Your task to perform on an android device: toggle wifi Image 0: 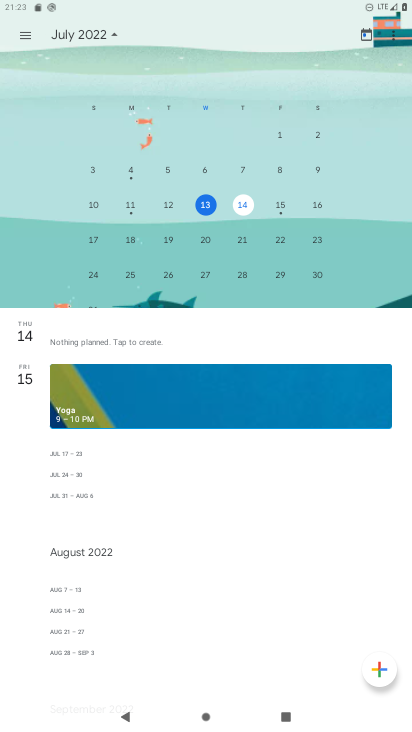
Step 0: press home button
Your task to perform on an android device: toggle wifi Image 1: 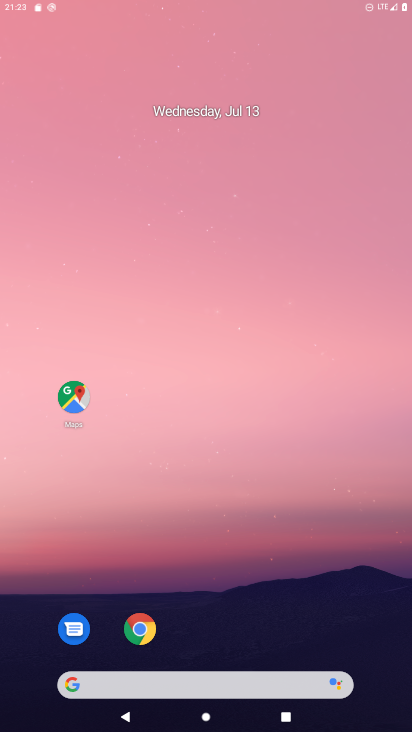
Step 1: drag from (183, 1) to (160, 396)
Your task to perform on an android device: toggle wifi Image 2: 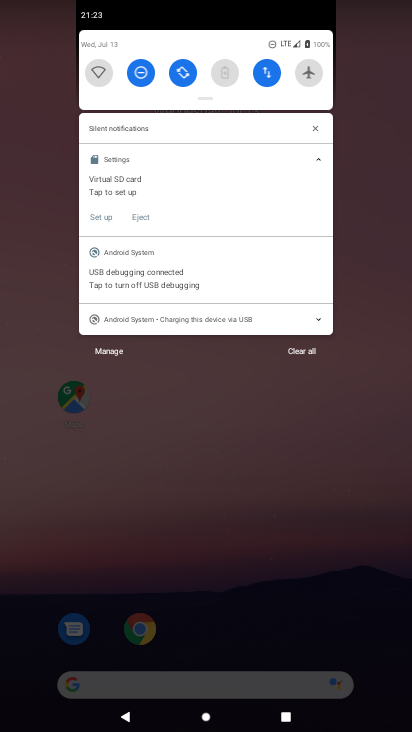
Step 2: click (96, 72)
Your task to perform on an android device: toggle wifi Image 3: 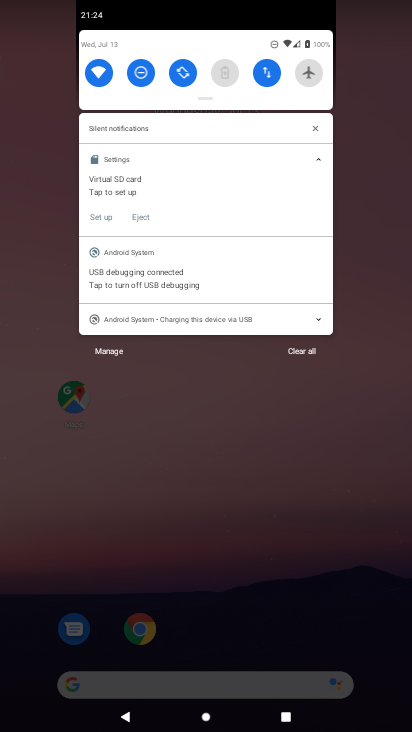
Step 3: task complete